Your task to perform on an android device: turn on priority inbox in the gmail app Image 0: 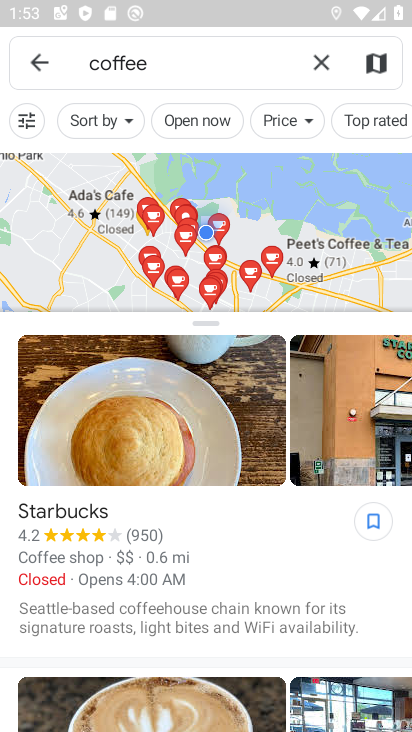
Step 0: press home button
Your task to perform on an android device: turn on priority inbox in the gmail app Image 1: 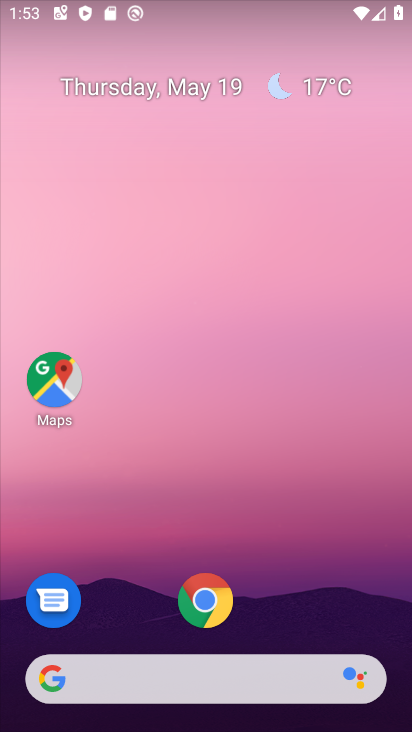
Step 1: drag from (270, 515) to (240, 163)
Your task to perform on an android device: turn on priority inbox in the gmail app Image 2: 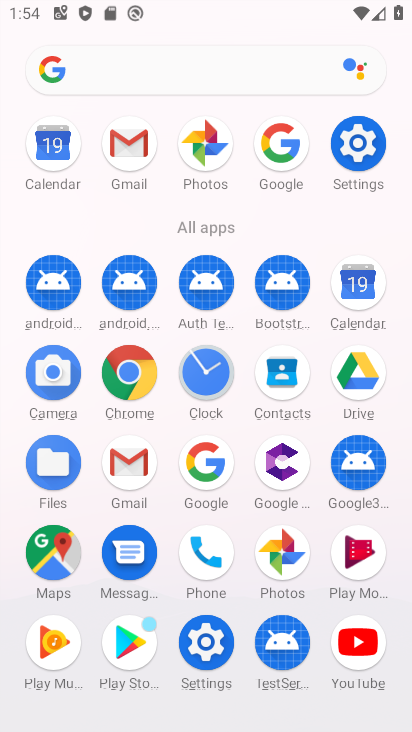
Step 2: click (124, 455)
Your task to perform on an android device: turn on priority inbox in the gmail app Image 3: 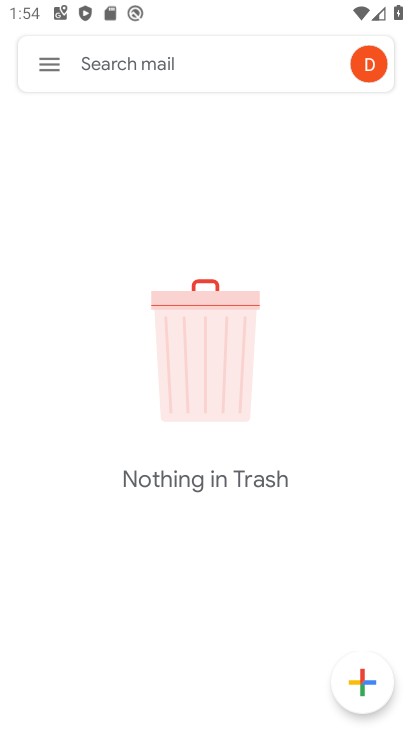
Step 3: click (36, 74)
Your task to perform on an android device: turn on priority inbox in the gmail app Image 4: 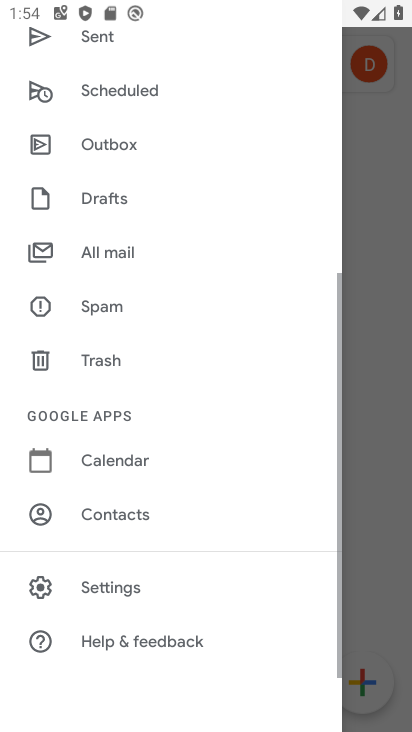
Step 4: click (118, 572)
Your task to perform on an android device: turn on priority inbox in the gmail app Image 5: 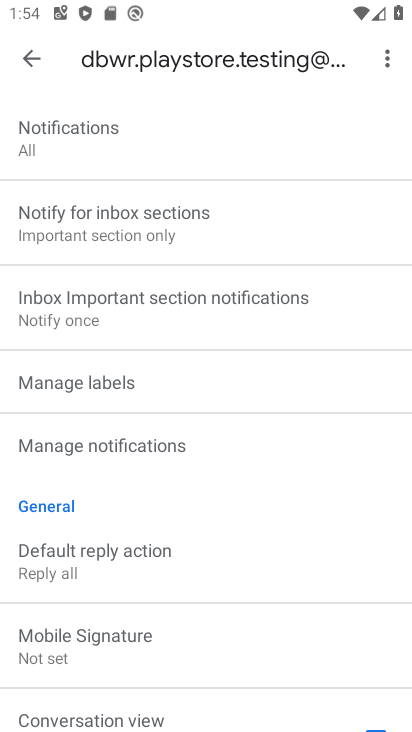
Step 5: drag from (34, 128) to (156, 458)
Your task to perform on an android device: turn on priority inbox in the gmail app Image 6: 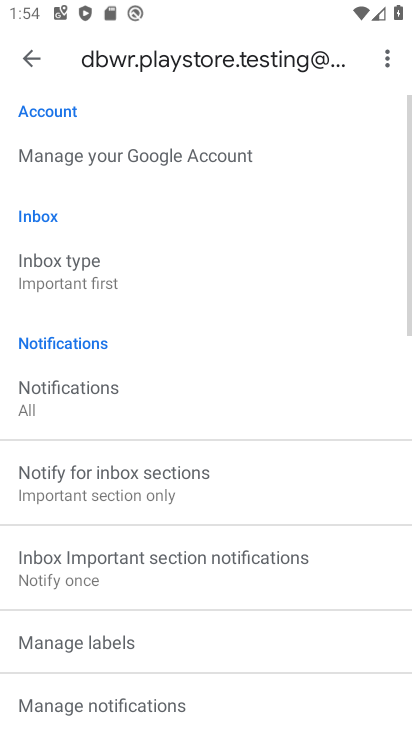
Step 6: drag from (98, 149) to (132, 442)
Your task to perform on an android device: turn on priority inbox in the gmail app Image 7: 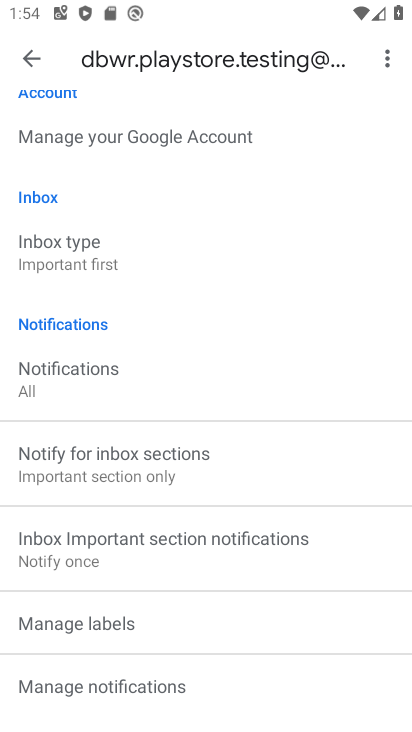
Step 7: click (77, 266)
Your task to perform on an android device: turn on priority inbox in the gmail app Image 8: 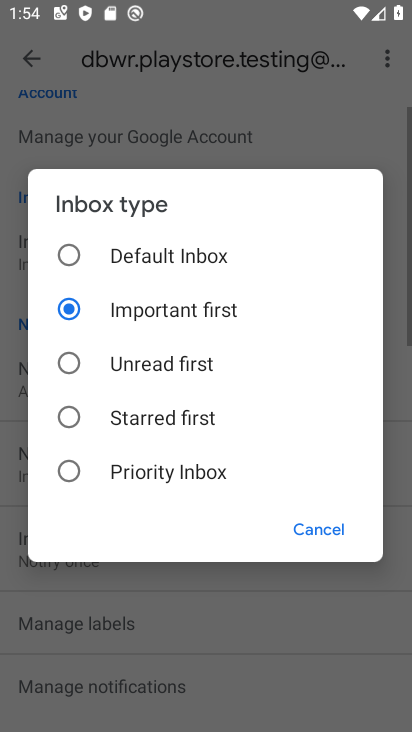
Step 8: click (113, 472)
Your task to perform on an android device: turn on priority inbox in the gmail app Image 9: 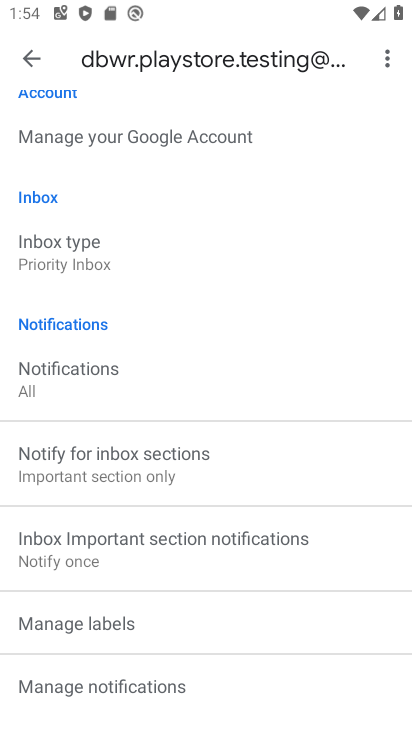
Step 9: task complete